Your task to perform on an android device: change timer sound Image 0: 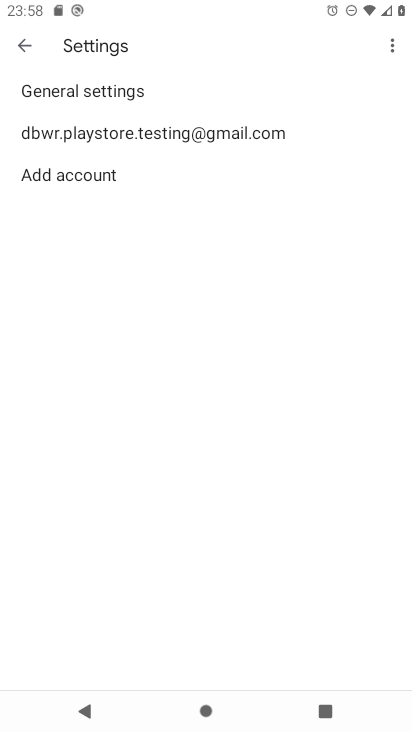
Step 0: press home button
Your task to perform on an android device: change timer sound Image 1: 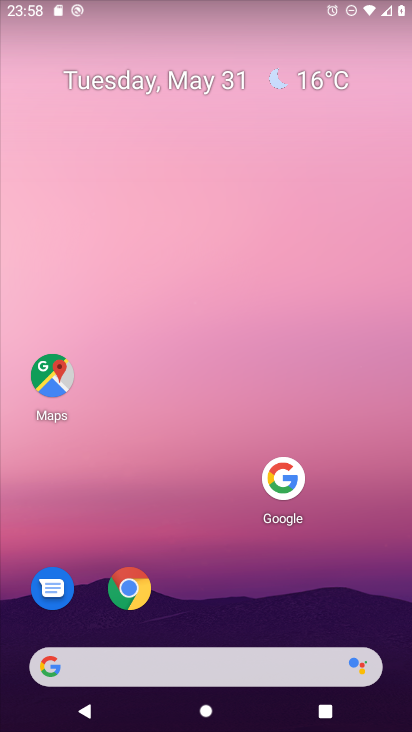
Step 1: drag from (137, 678) to (265, 283)
Your task to perform on an android device: change timer sound Image 2: 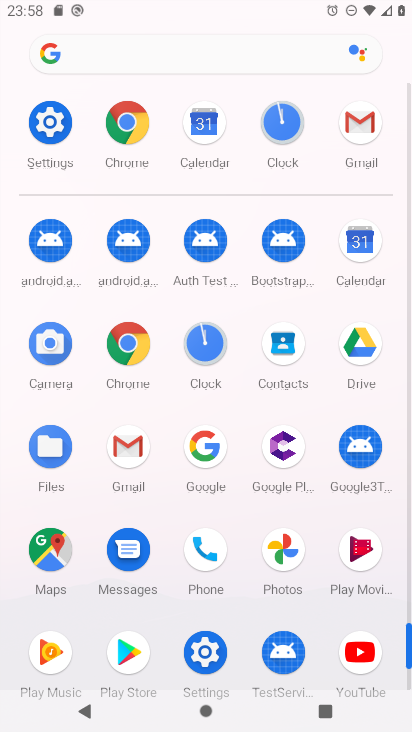
Step 2: click (283, 129)
Your task to perform on an android device: change timer sound Image 3: 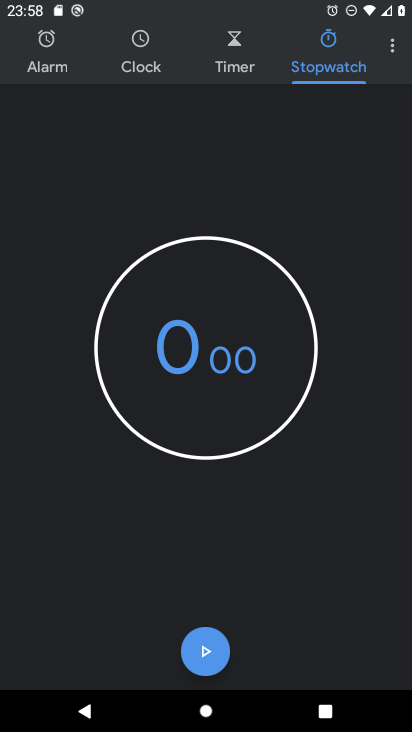
Step 3: click (393, 31)
Your task to perform on an android device: change timer sound Image 4: 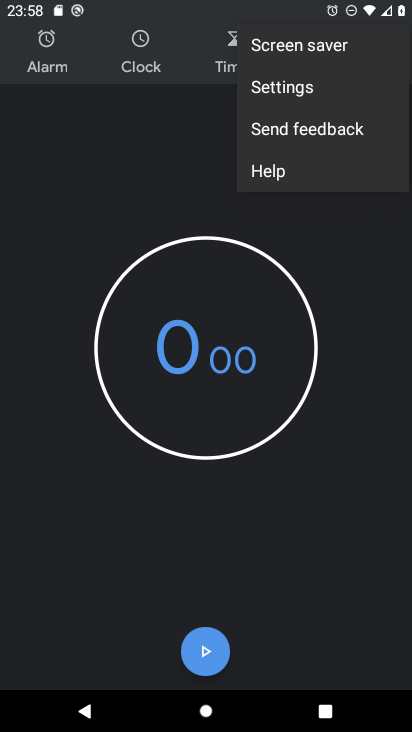
Step 4: click (286, 97)
Your task to perform on an android device: change timer sound Image 5: 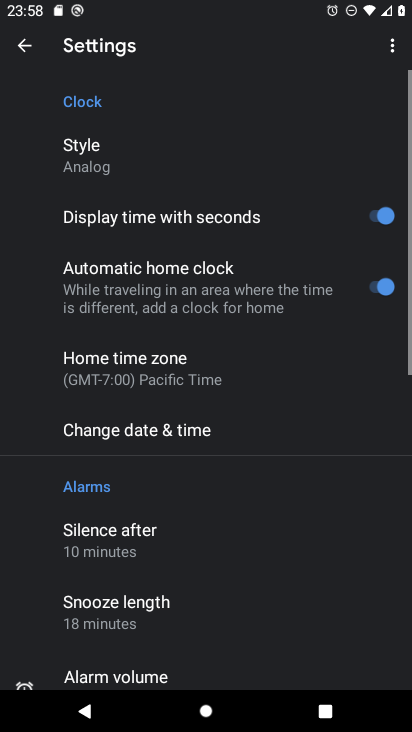
Step 5: drag from (185, 641) to (338, 110)
Your task to perform on an android device: change timer sound Image 6: 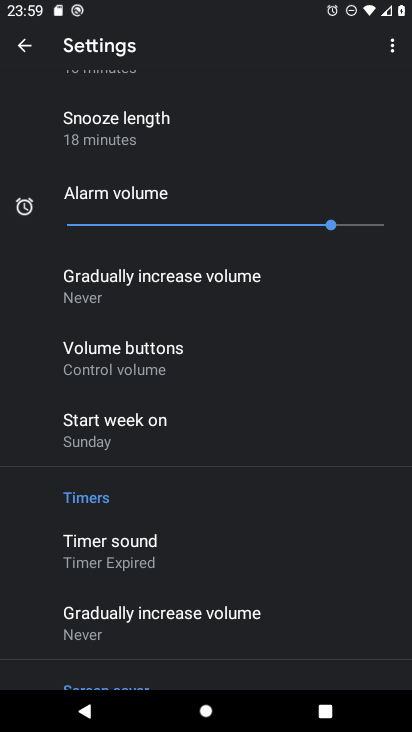
Step 6: click (131, 556)
Your task to perform on an android device: change timer sound Image 7: 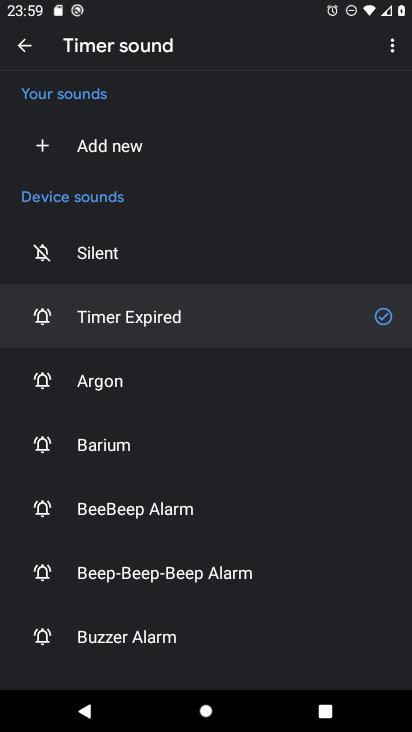
Step 7: click (107, 448)
Your task to perform on an android device: change timer sound Image 8: 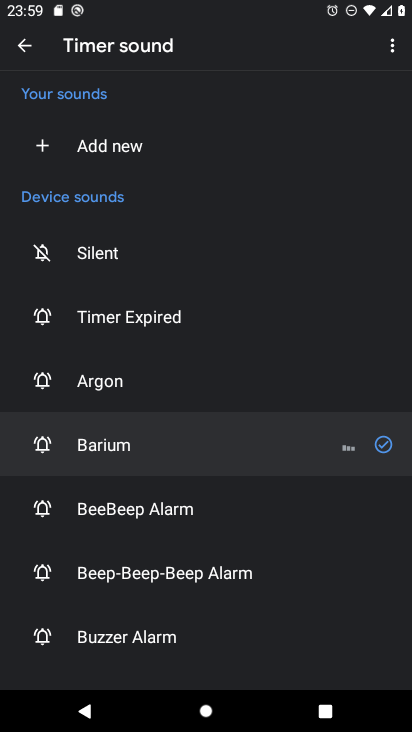
Step 8: task complete